Your task to perform on an android device: Open settings Image 0: 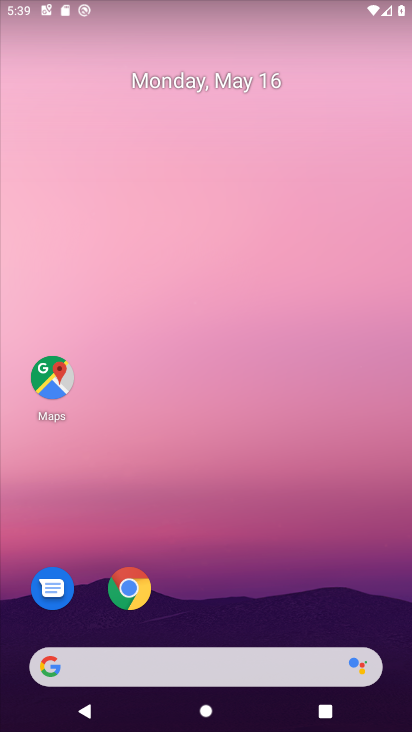
Step 0: drag from (223, 422) to (201, 61)
Your task to perform on an android device: Open settings Image 1: 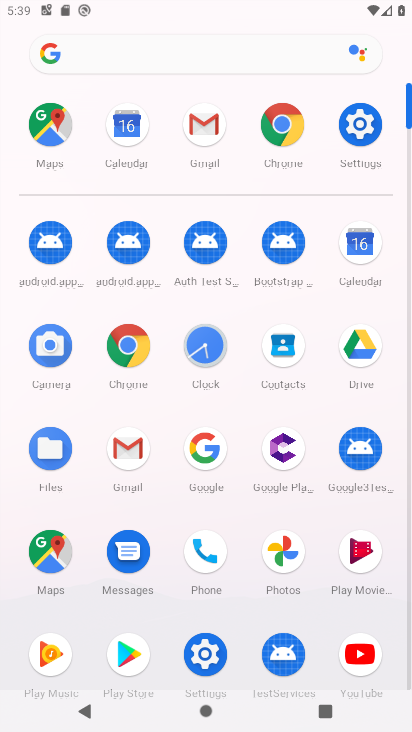
Step 1: click (356, 137)
Your task to perform on an android device: Open settings Image 2: 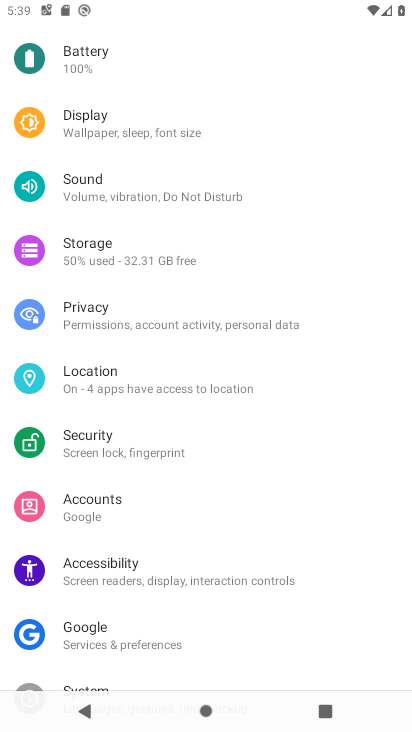
Step 2: task complete